Your task to perform on an android device: toggle wifi Image 0: 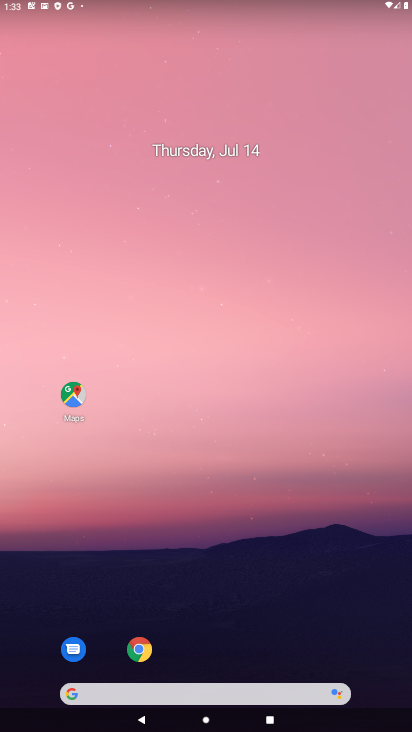
Step 0: drag from (203, 15) to (253, 490)
Your task to perform on an android device: toggle wifi Image 1: 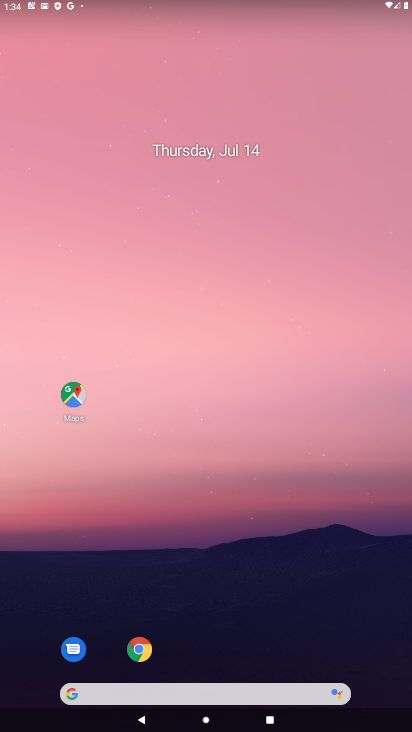
Step 1: drag from (192, 3) to (270, 510)
Your task to perform on an android device: toggle wifi Image 2: 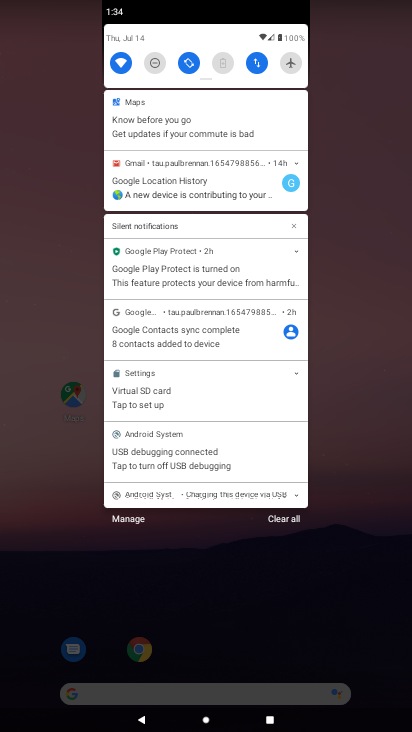
Step 2: click (120, 68)
Your task to perform on an android device: toggle wifi Image 3: 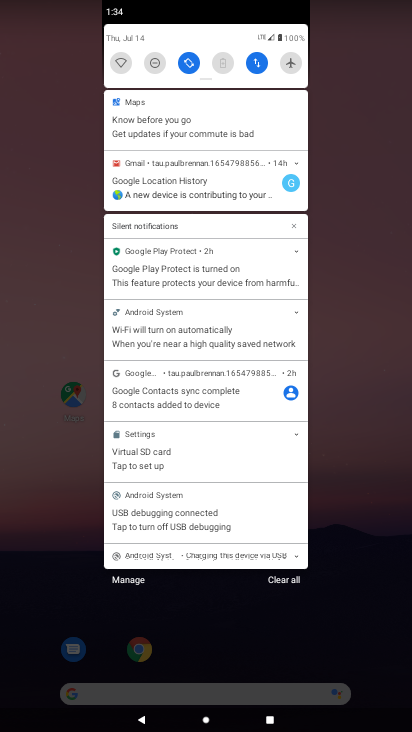
Step 3: task complete